Your task to perform on an android device: delete location history Image 0: 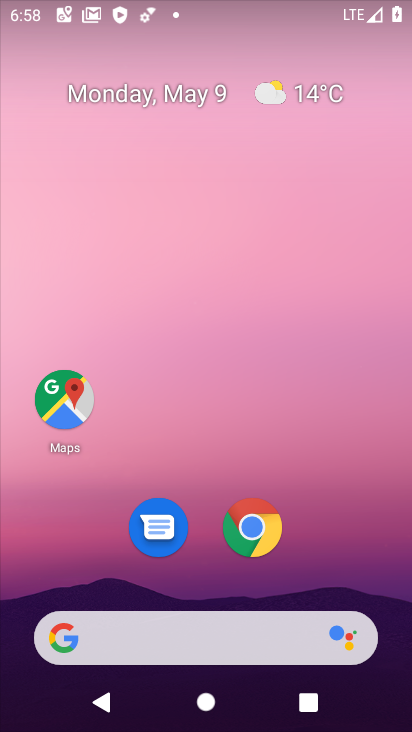
Step 0: click (62, 403)
Your task to perform on an android device: delete location history Image 1: 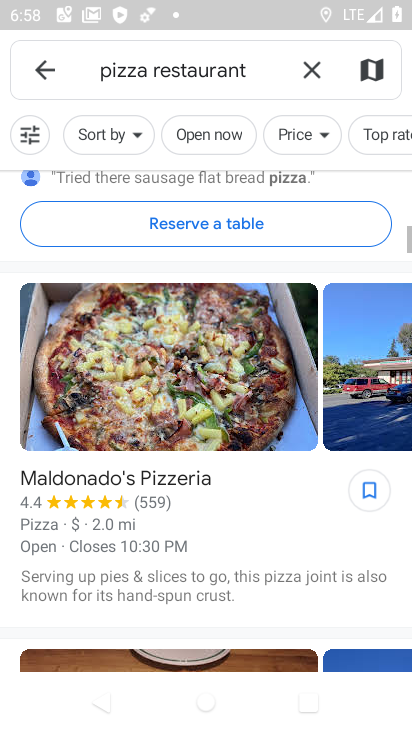
Step 1: click (305, 62)
Your task to perform on an android device: delete location history Image 2: 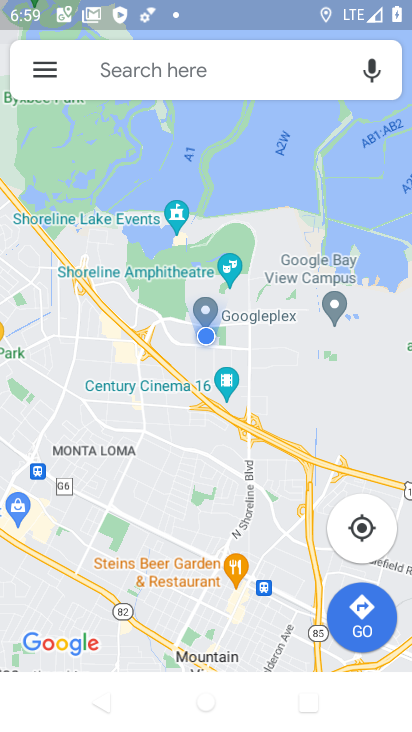
Step 2: click (37, 69)
Your task to perform on an android device: delete location history Image 3: 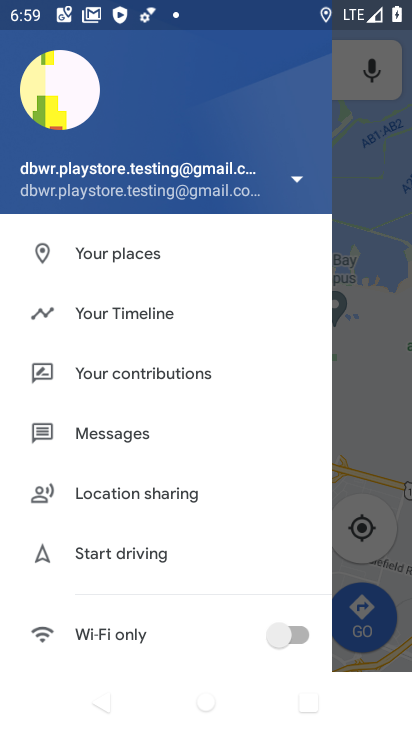
Step 3: drag from (120, 529) to (140, 416)
Your task to perform on an android device: delete location history Image 4: 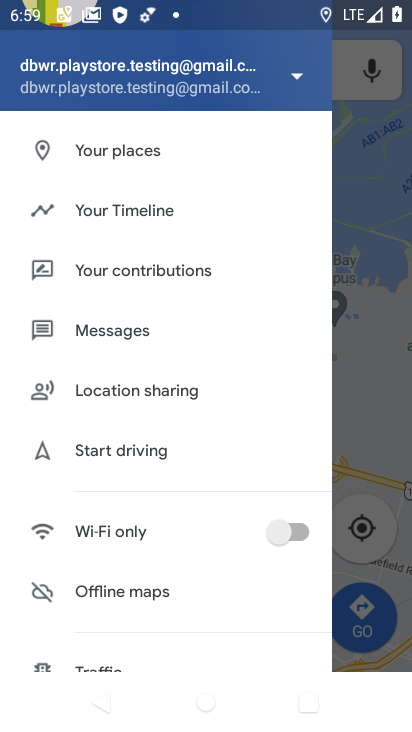
Step 4: drag from (118, 558) to (142, 417)
Your task to perform on an android device: delete location history Image 5: 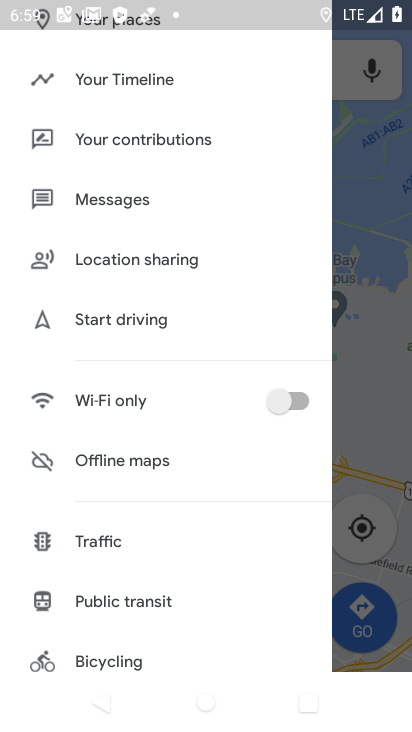
Step 5: drag from (123, 579) to (159, 401)
Your task to perform on an android device: delete location history Image 6: 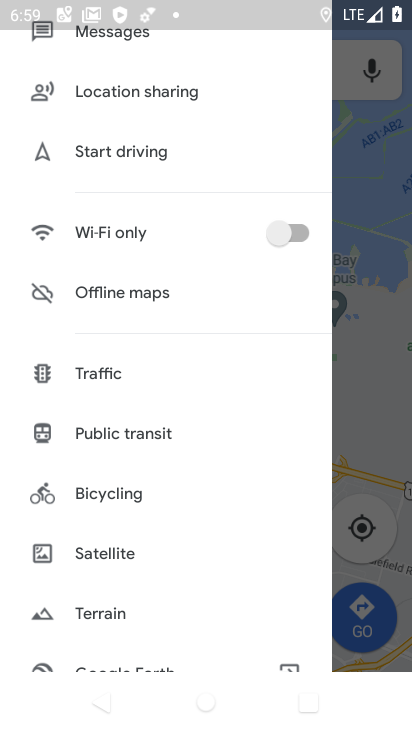
Step 6: drag from (118, 582) to (169, 413)
Your task to perform on an android device: delete location history Image 7: 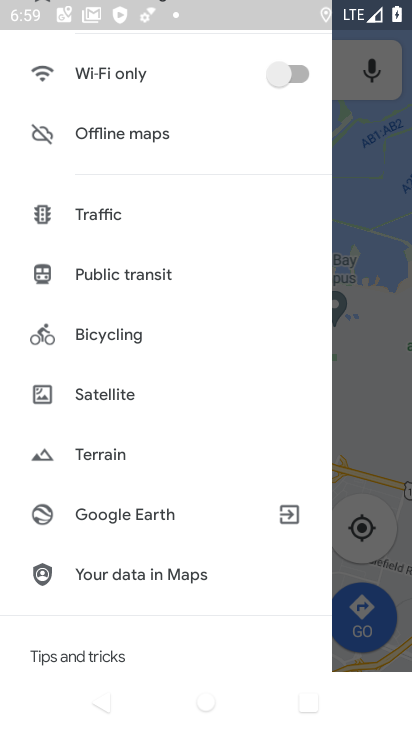
Step 7: drag from (106, 611) to (182, 425)
Your task to perform on an android device: delete location history Image 8: 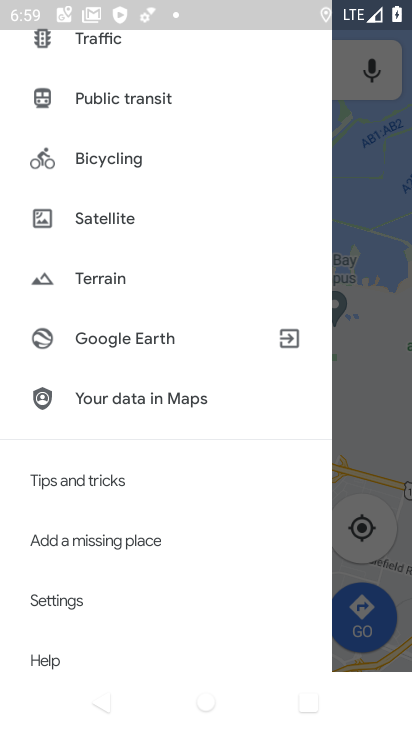
Step 8: click (77, 597)
Your task to perform on an android device: delete location history Image 9: 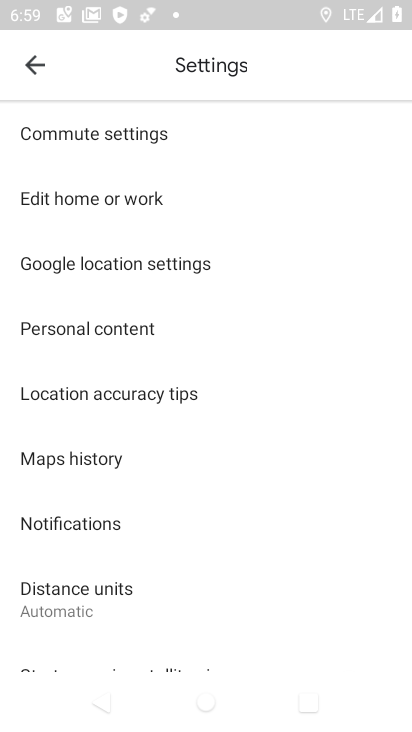
Step 9: click (122, 330)
Your task to perform on an android device: delete location history Image 10: 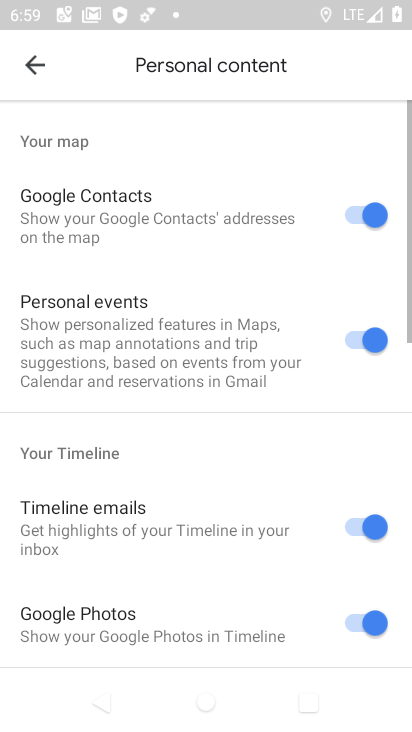
Step 10: drag from (151, 466) to (187, 284)
Your task to perform on an android device: delete location history Image 11: 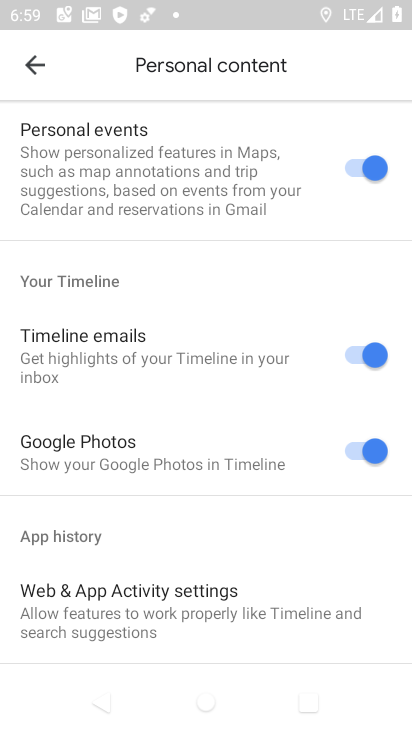
Step 11: drag from (215, 538) to (257, 340)
Your task to perform on an android device: delete location history Image 12: 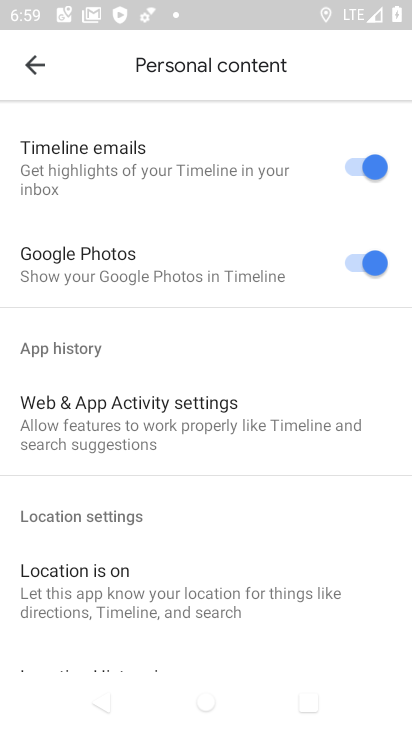
Step 12: drag from (189, 534) to (229, 376)
Your task to perform on an android device: delete location history Image 13: 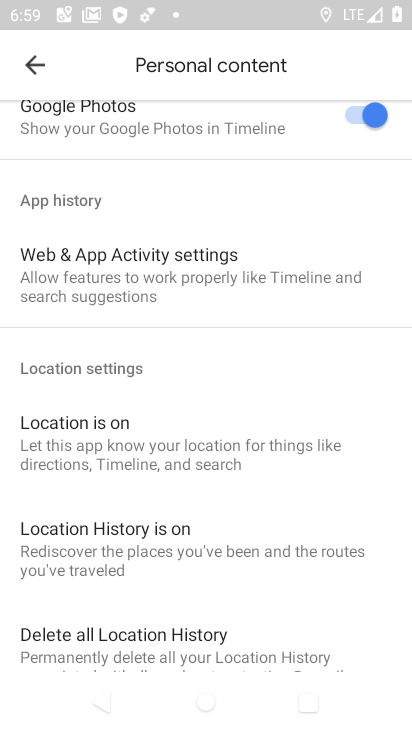
Step 13: drag from (218, 587) to (274, 428)
Your task to perform on an android device: delete location history Image 14: 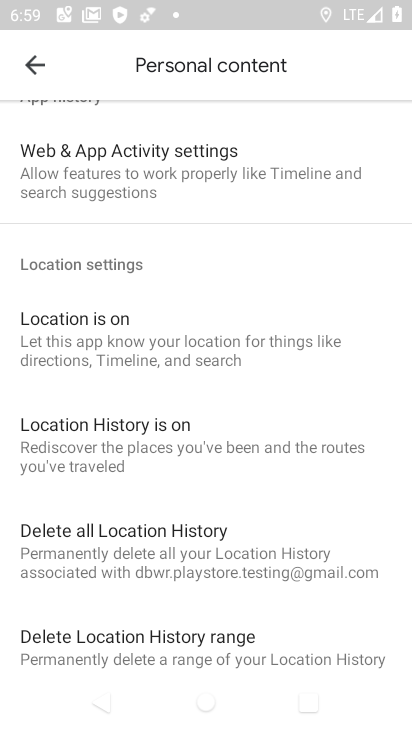
Step 14: click (164, 534)
Your task to perform on an android device: delete location history Image 15: 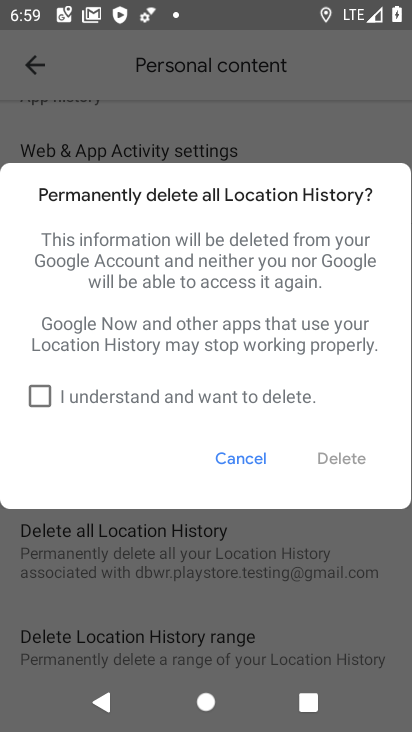
Step 15: click (35, 393)
Your task to perform on an android device: delete location history Image 16: 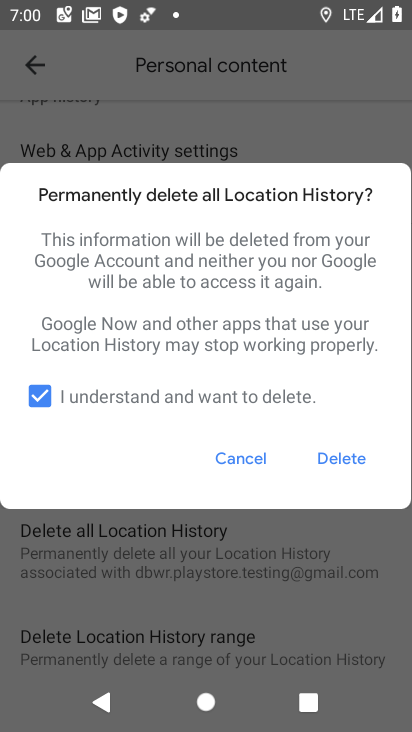
Step 16: click (351, 458)
Your task to perform on an android device: delete location history Image 17: 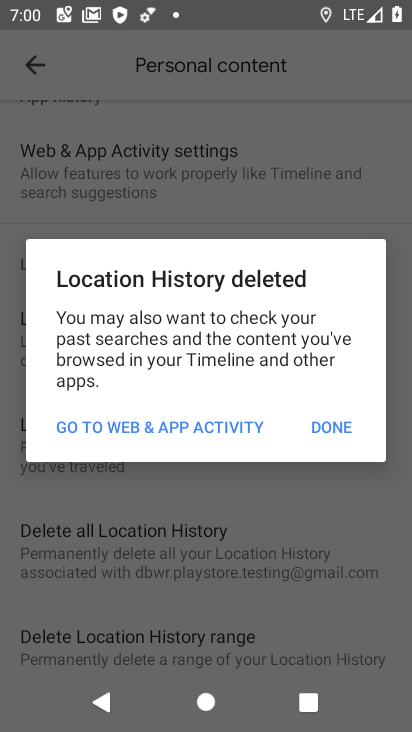
Step 17: click (330, 428)
Your task to perform on an android device: delete location history Image 18: 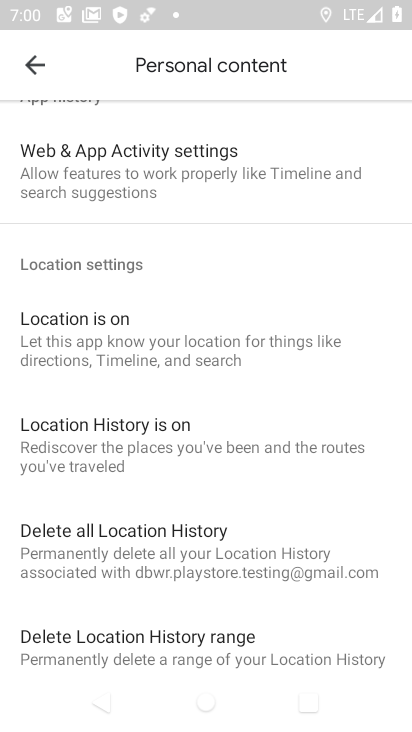
Step 18: task complete